Your task to perform on an android device: Open Google Maps and go to "Timeline" Image 0: 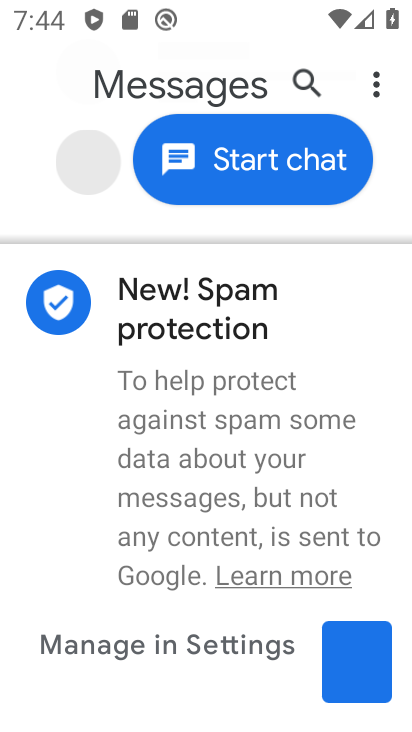
Step 0: press home button
Your task to perform on an android device: Open Google Maps and go to "Timeline" Image 1: 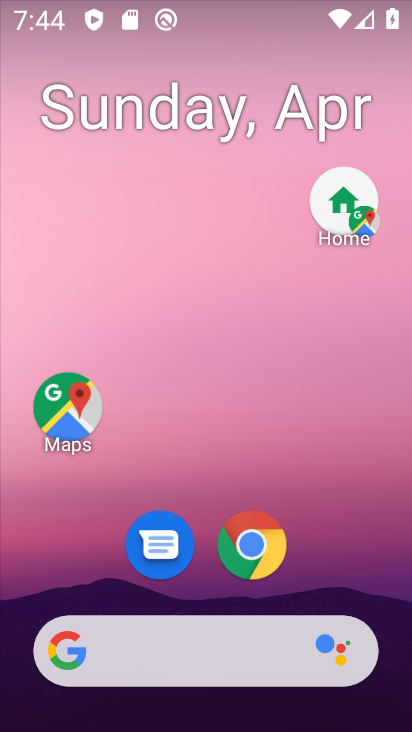
Step 1: drag from (326, 582) to (359, 195)
Your task to perform on an android device: Open Google Maps and go to "Timeline" Image 2: 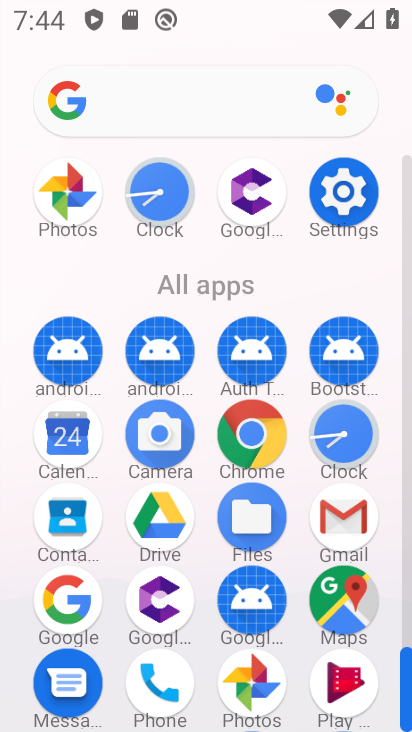
Step 2: click (344, 593)
Your task to perform on an android device: Open Google Maps and go to "Timeline" Image 3: 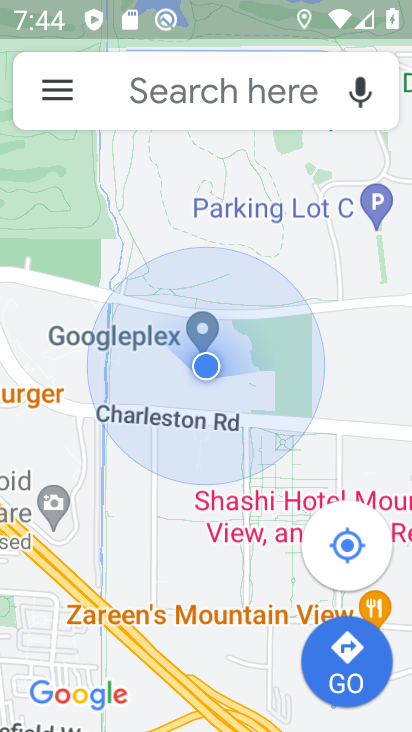
Step 3: click (49, 83)
Your task to perform on an android device: Open Google Maps and go to "Timeline" Image 4: 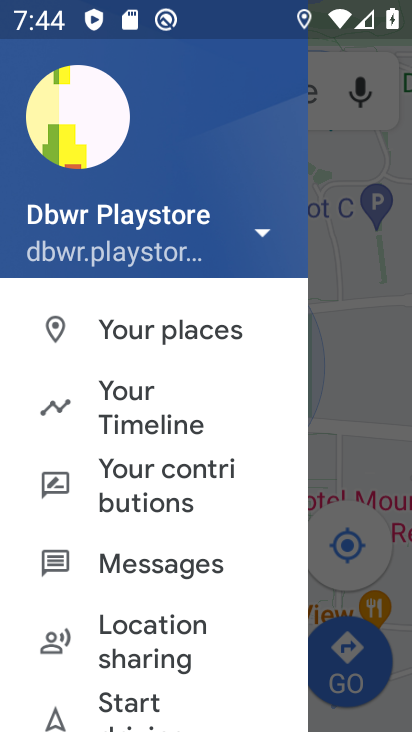
Step 4: click (148, 405)
Your task to perform on an android device: Open Google Maps and go to "Timeline" Image 5: 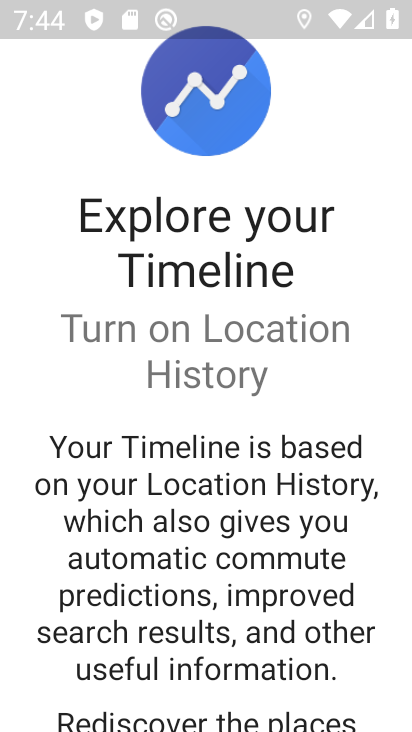
Step 5: click (254, 552)
Your task to perform on an android device: Open Google Maps and go to "Timeline" Image 6: 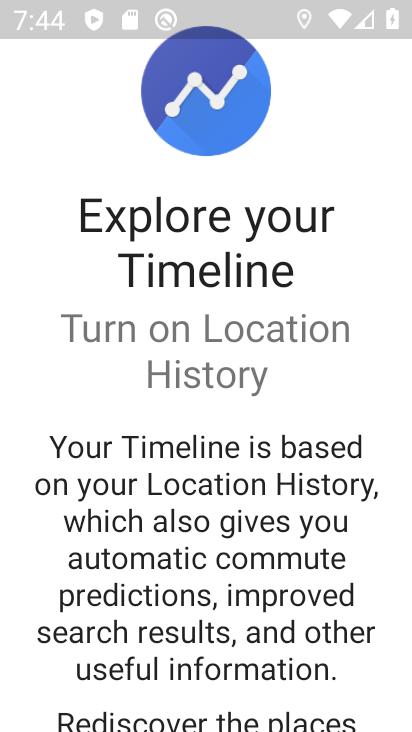
Step 6: click (334, 82)
Your task to perform on an android device: Open Google Maps and go to "Timeline" Image 7: 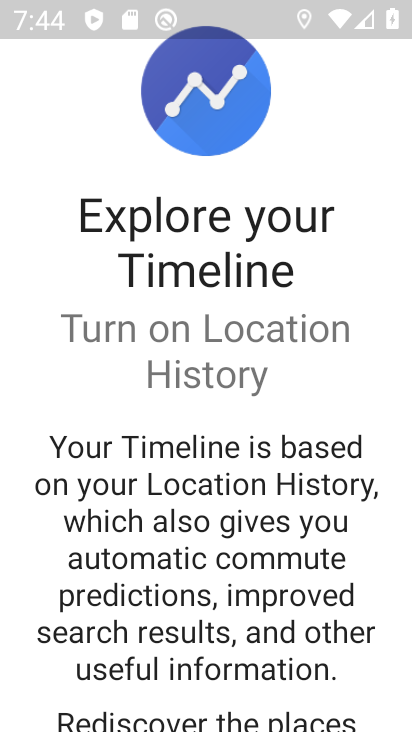
Step 7: drag from (263, 453) to (270, 120)
Your task to perform on an android device: Open Google Maps and go to "Timeline" Image 8: 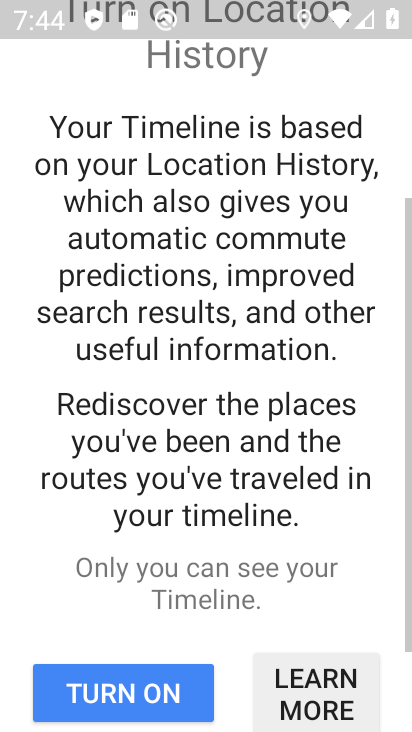
Step 8: drag from (252, 532) to (276, 325)
Your task to perform on an android device: Open Google Maps and go to "Timeline" Image 9: 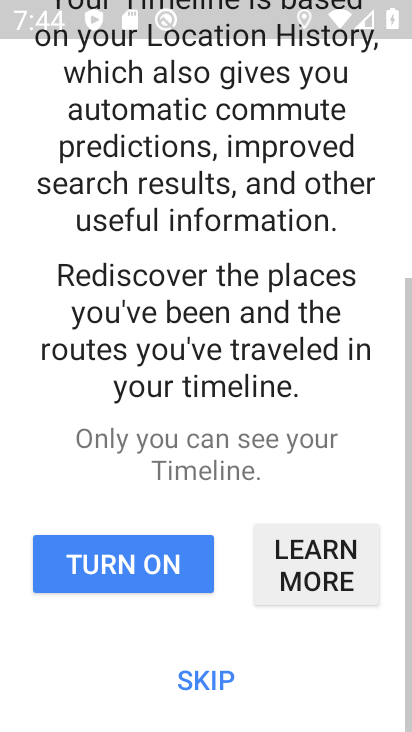
Step 9: click (299, 126)
Your task to perform on an android device: Open Google Maps and go to "Timeline" Image 10: 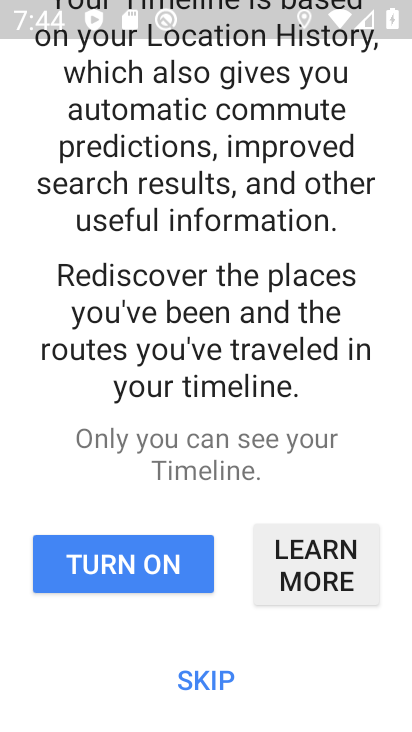
Step 10: click (217, 673)
Your task to perform on an android device: Open Google Maps and go to "Timeline" Image 11: 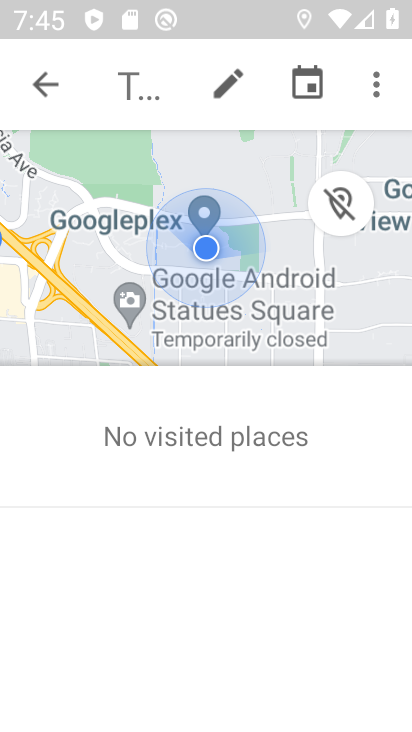
Step 11: task complete